Your task to perform on an android device: Go to accessibility settings Image 0: 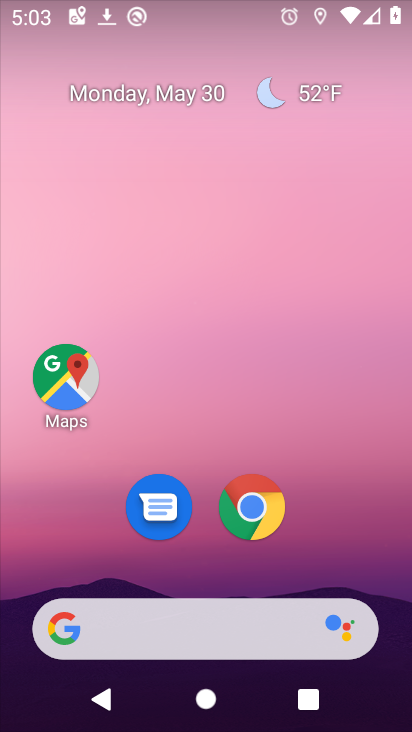
Step 0: press home button
Your task to perform on an android device: Go to accessibility settings Image 1: 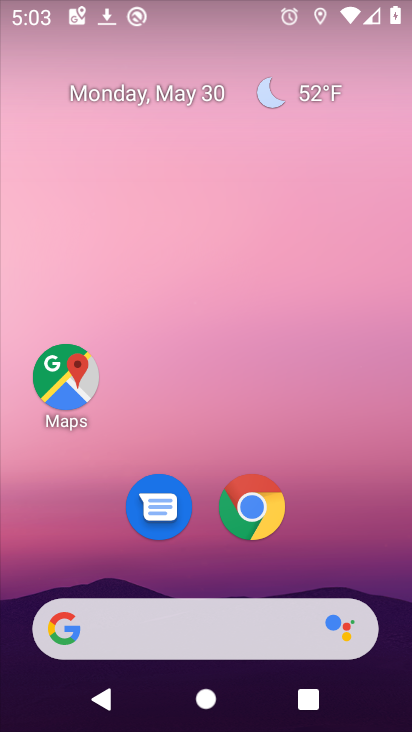
Step 1: drag from (374, 564) to (359, 0)
Your task to perform on an android device: Go to accessibility settings Image 2: 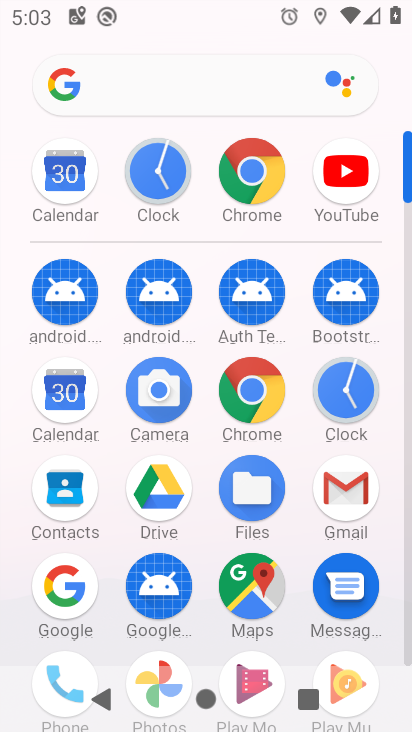
Step 2: click (408, 660)
Your task to perform on an android device: Go to accessibility settings Image 3: 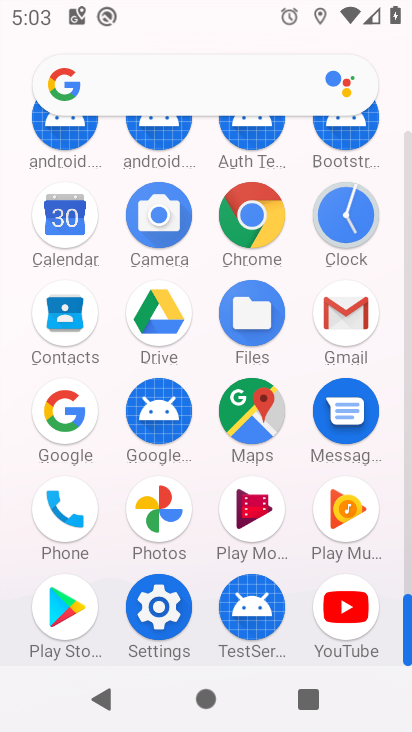
Step 3: click (139, 603)
Your task to perform on an android device: Go to accessibility settings Image 4: 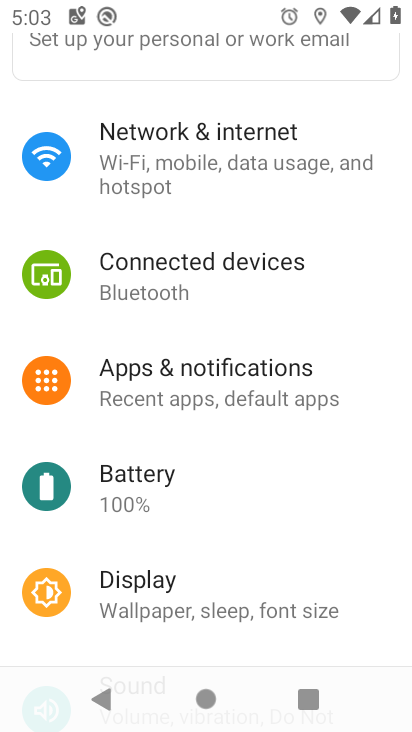
Step 4: drag from (359, 197) to (278, 719)
Your task to perform on an android device: Go to accessibility settings Image 5: 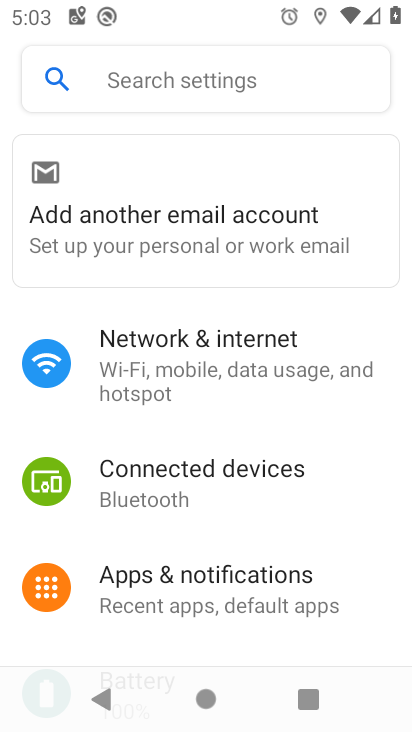
Step 5: drag from (219, 513) to (258, 12)
Your task to perform on an android device: Go to accessibility settings Image 6: 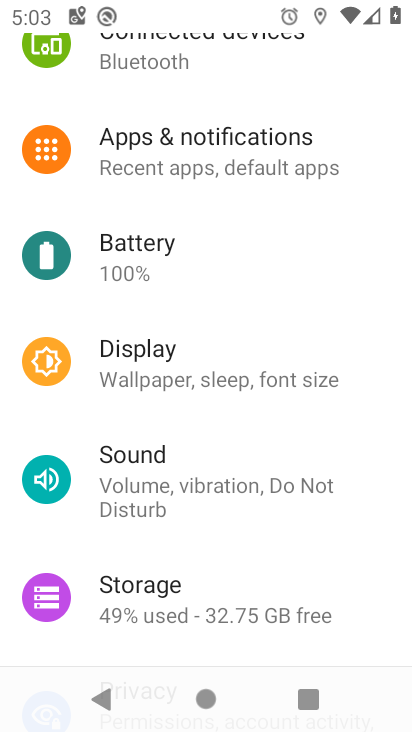
Step 6: drag from (340, 500) to (335, 111)
Your task to perform on an android device: Go to accessibility settings Image 7: 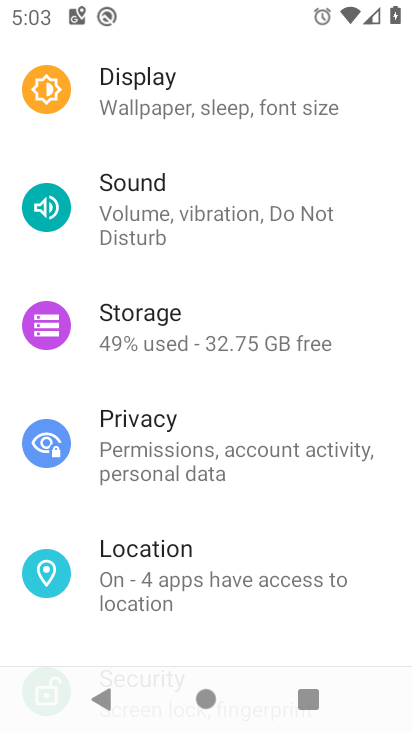
Step 7: drag from (276, 542) to (277, 129)
Your task to perform on an android device: Go to accessibility settings Image 8: 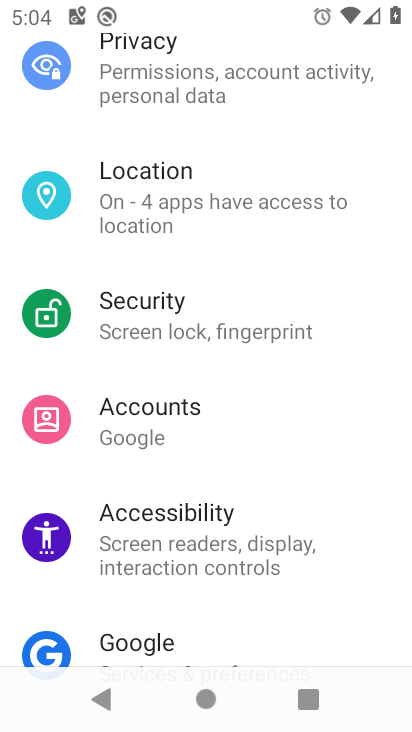
Step 8: click (215, 511)
Your task to perform on an android device: Go to accessibility settings Image 9: 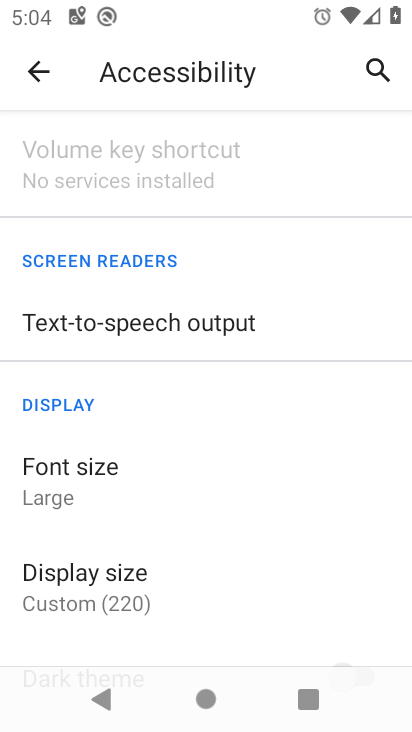
Step 9: task complete